Your task to perform on an android device: Go to location settings Image 0: 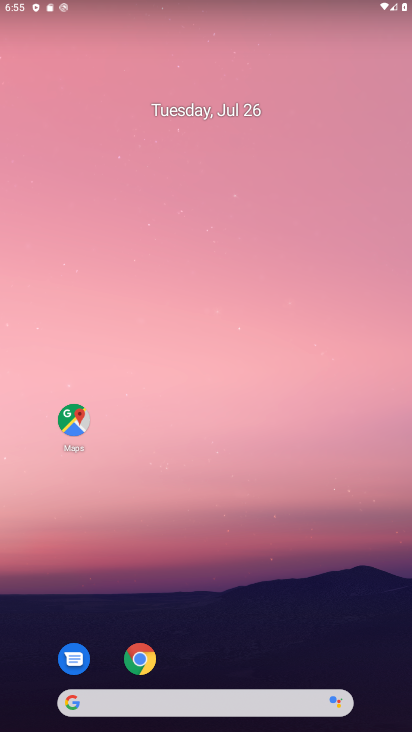
Step 0: drag from (243, 722) to (411, 190)
Your task to perform on an android device: Go to location settings Image 1: 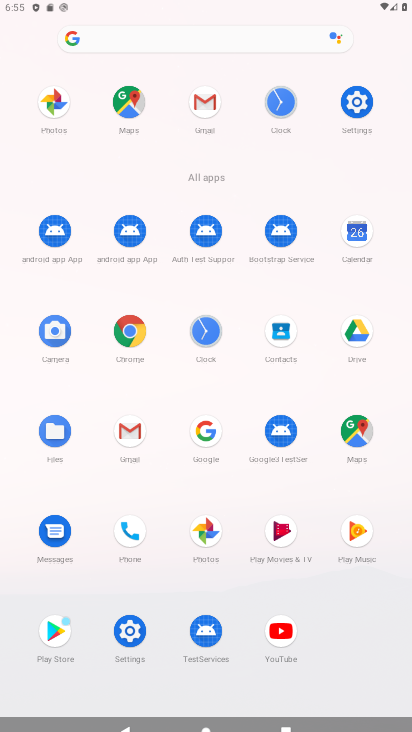
Step 1: drag from (349, 244) to (348, 97)
Your task to perform on an android device: Go to location settings Image 2: 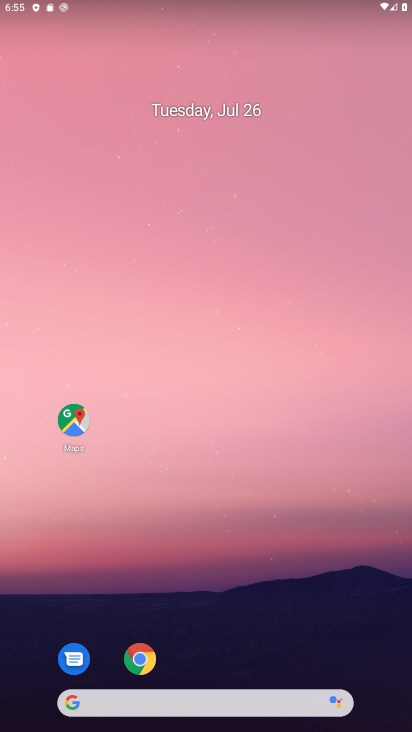
Step 2: drag from (242, 722) to (401, 35)
Your task to perform on an android device: Go to location settings Image 3: 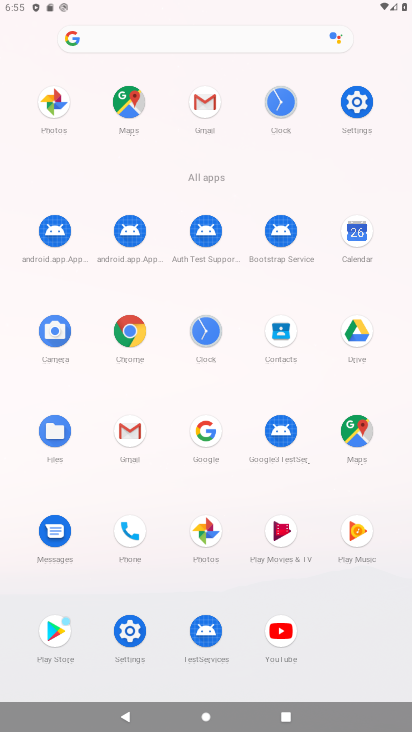
Step 3: drag from (353, 99) to (355, 145)
Your task to perform on an android device: Go to location settings Image 4: 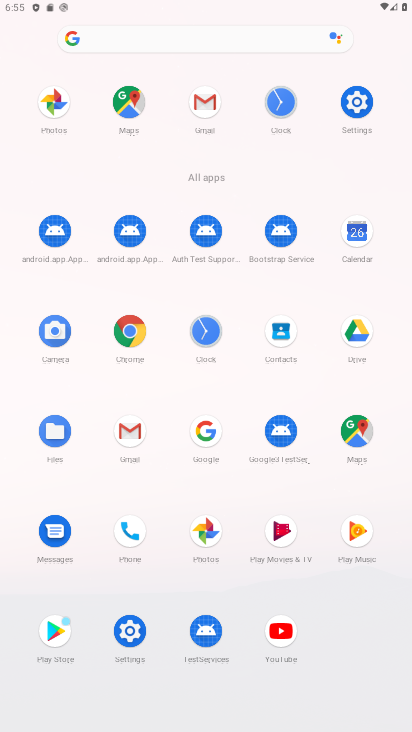
Step 4: click (367, 106)
Your task to perform on an android device: Go to location settings Image 5: 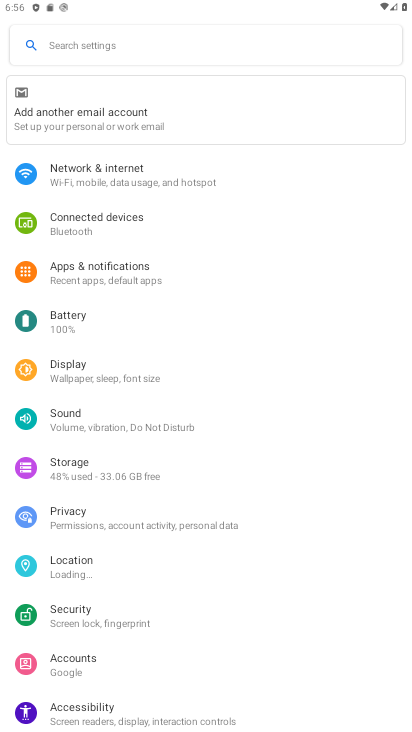
Step 5: click (115, 43)
Your task to perform on an android device: Go to location settings Image 6: 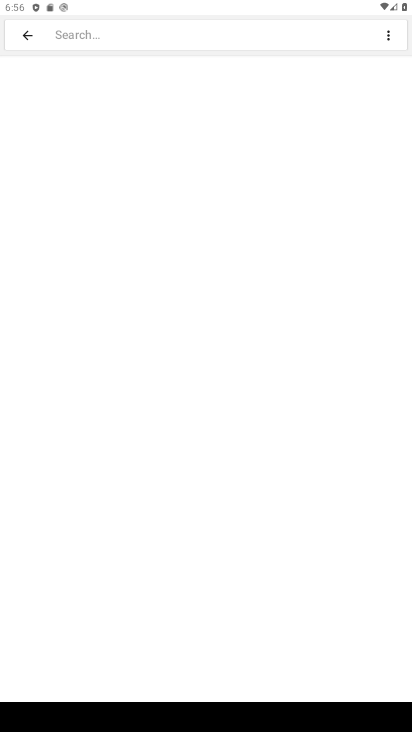
Step 6: drag from (385, 725) to (389, 606)
Your task to perform on an android device: Go to location settings Image 7: 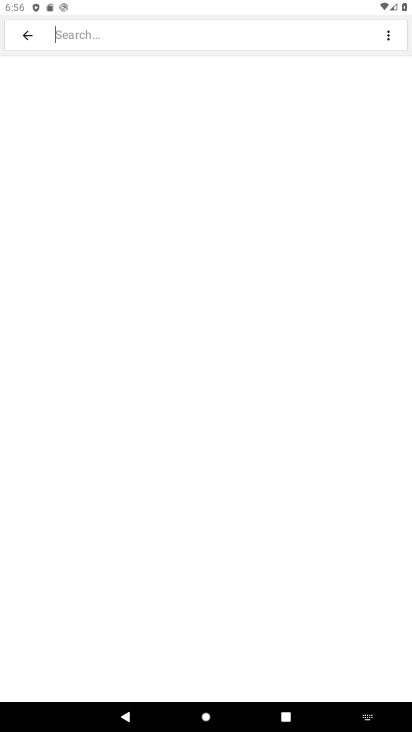
Step 7: click (368, 721)
Your task to perform on an android device: Go to location settings Image 8: 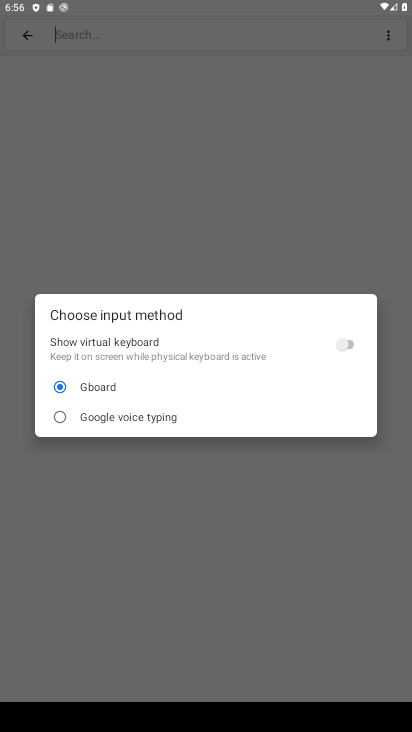
Step 8: click (347, 346)
Your task to perform on an android device: Go to location settings Image 9: 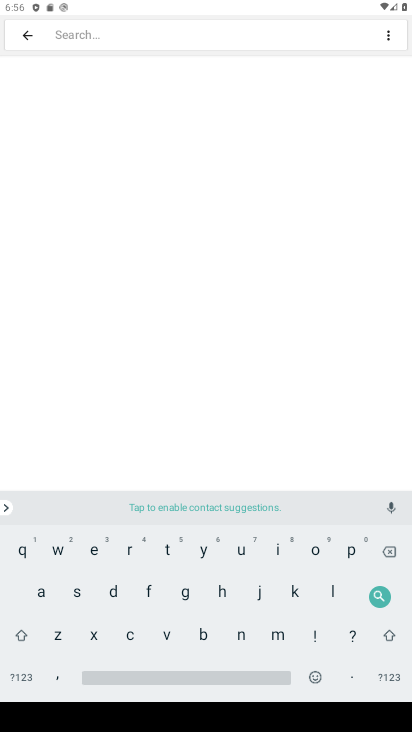
Step 9: click (337, 588)
Your task to perform on an android device: Go to location settings Image 10: 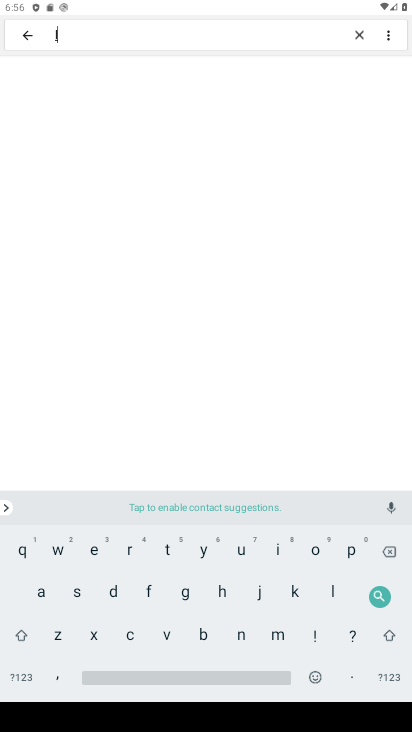
Step 10: click (315, 557)
Your task to perform on an android device: Go to location settings Image 11: 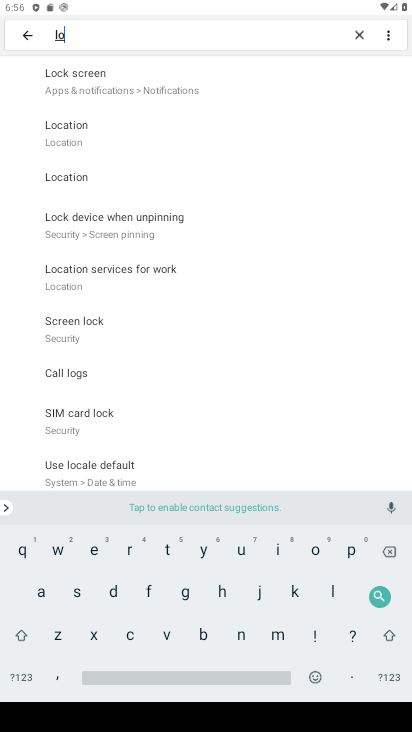
Step 11: click (75, 144)
Your task to perform on an android device: Go to location settings Image 12: 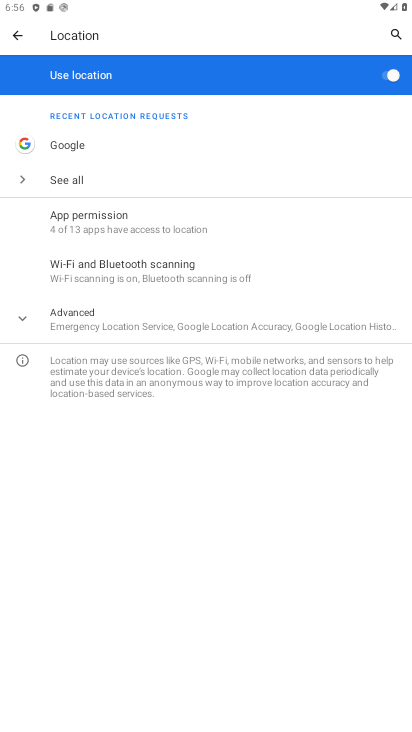
Step 12: task complete